Your task to perform on an android device: Open calendar and show me the third week of next month Image 0: 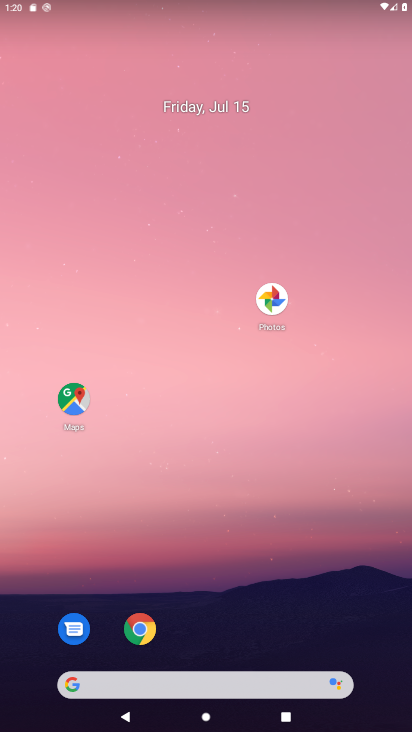
Step 0: drag from (262, 647) to (214, 265)
Your task to perform on an android device: Open calendar and show me the third week of next month Image 1: 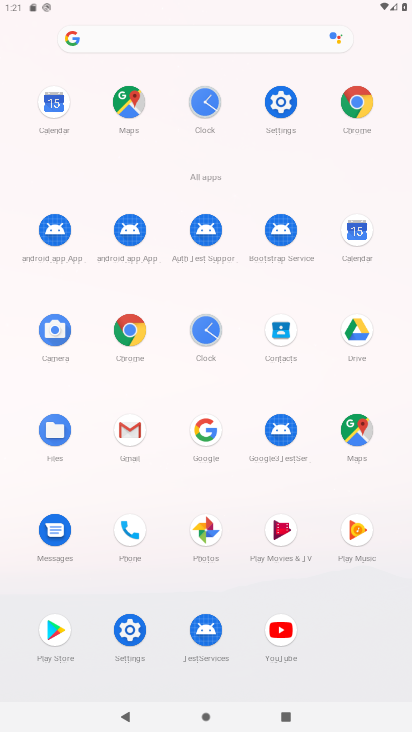
Step 1: click (364, 228)
Your task to perform on an android device: Open calendar and show me the third week of next month Image 2: 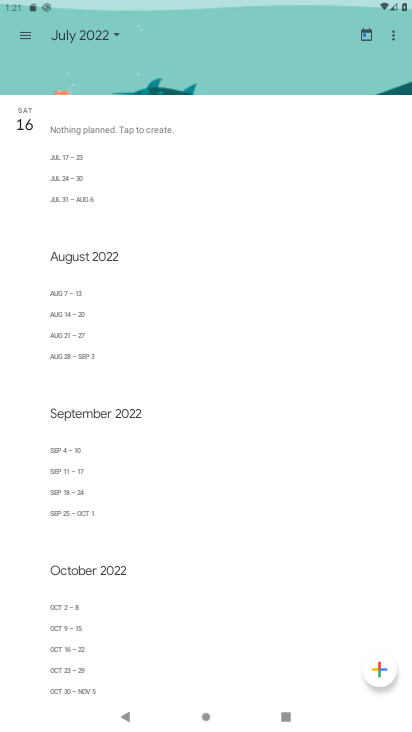
Step 2: click (24, 35)
Your task to perform on an android device: Open calendar and show me the third week of next month Image 3: 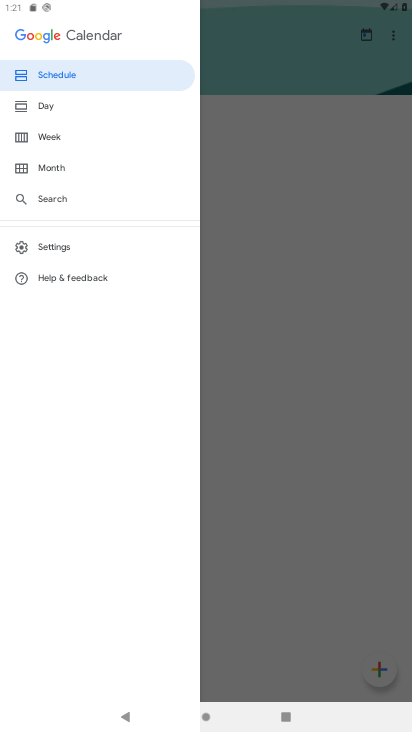
Step 3: click (41, 140)
Your task to perform on an android device: Open calendar and show me the third week of next month Image 4: 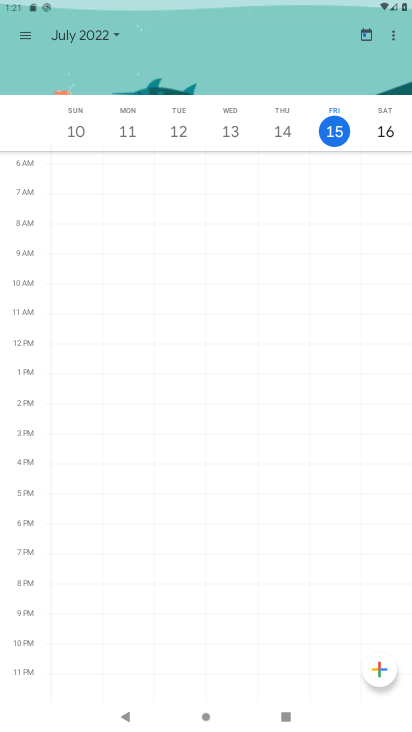
Step 4: task complete